Your task to perform on an android device: change alarm snooze length Image 0: 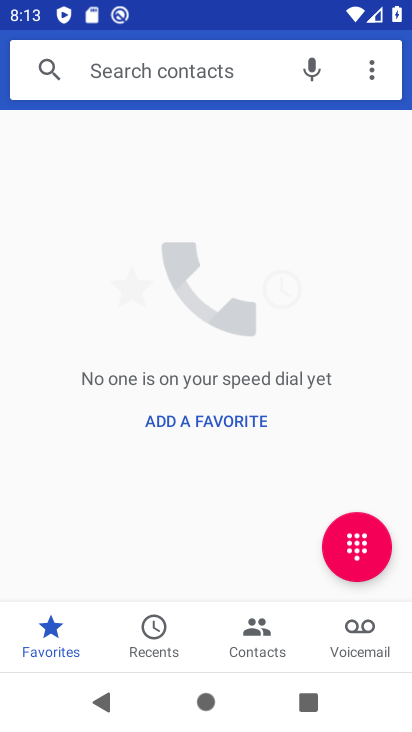
Step 0: press home button
Your task to perform on an android device: change alarm snooze length Image 1: 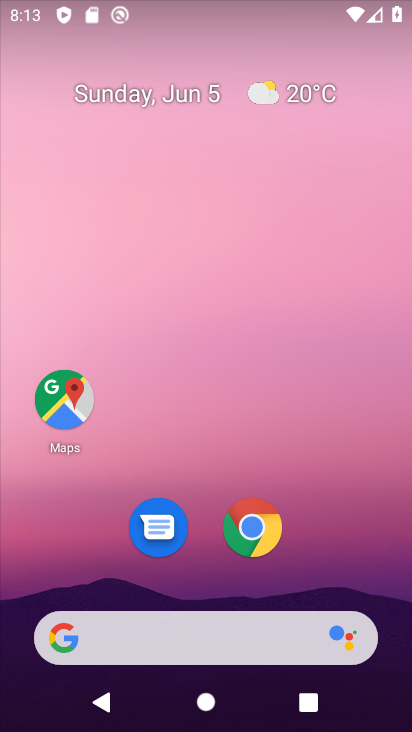
Step 1: drag from (330, 535) to (268, 2)
Your task to perform on an android device: change alarm snooze length Image 2: 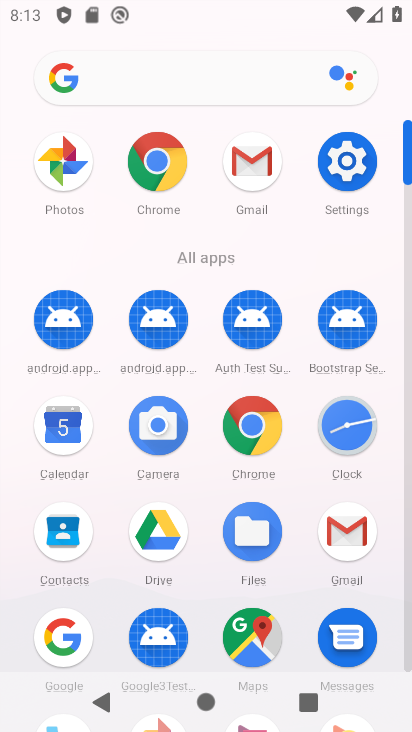
Step 2: click (333, 437)
Your task to perform on an android device: change alarm snooze length Image 3: 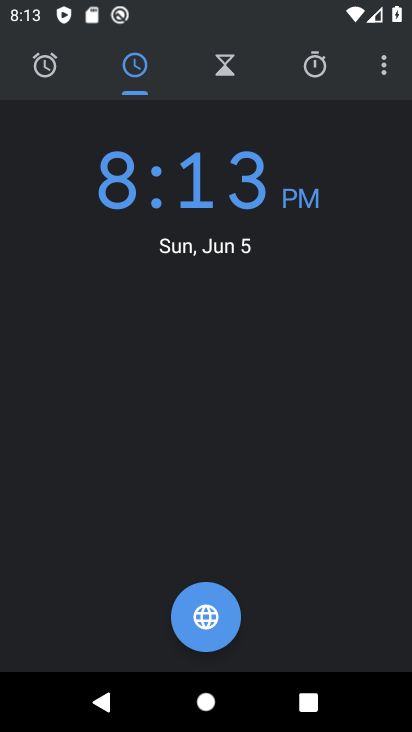
Step 3: click (390, 76)
Your task to perform on an android device: change alarm snooze length Image 4: 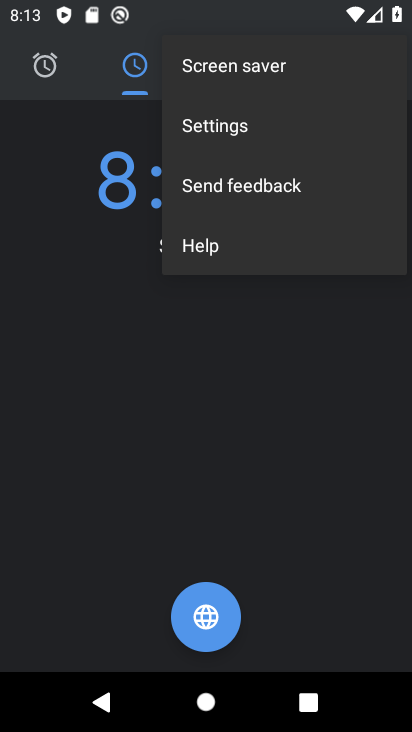
Step 4: click (236, 127)
Your task to perform on an android device: change alarm snooze length Image 5: 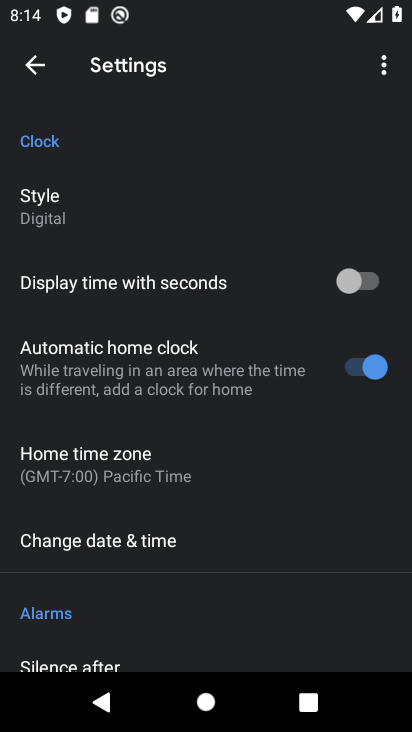
Step 5: drag from (183, 545) to (89, 181)
Your task to perform on an android device: change alarm snooze length Image 6: 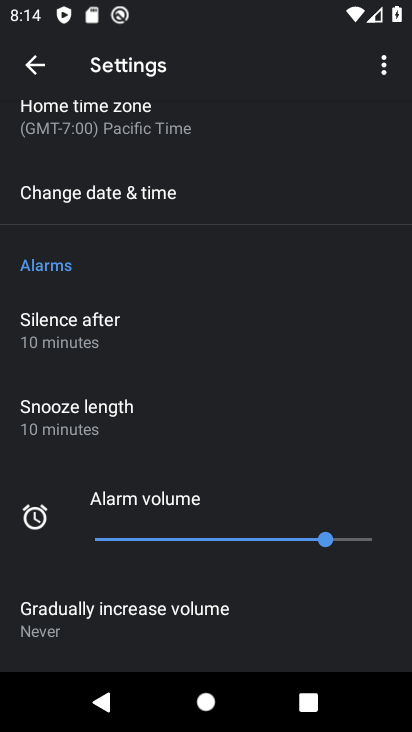
Step 6: click (87, 422)
Your task to perform on an android device: change alarm snooze length Image 7: 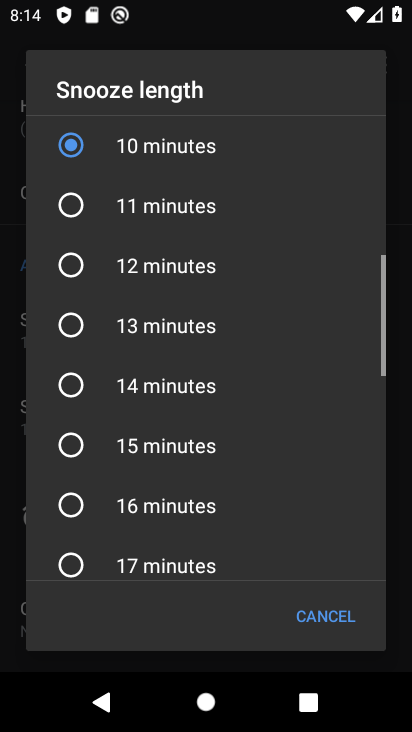
Step 7: click (130, 351)
Your task to perform on an android device: change alarm snooze length Image 8: 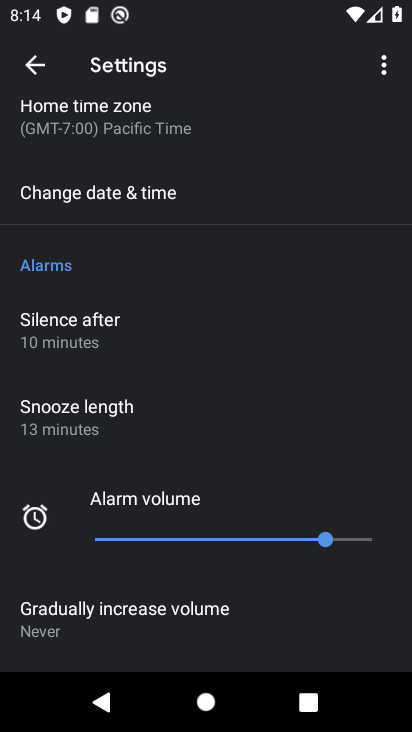
Step 8: task complete